Your task to perform on an android device: turn off location Image 0: 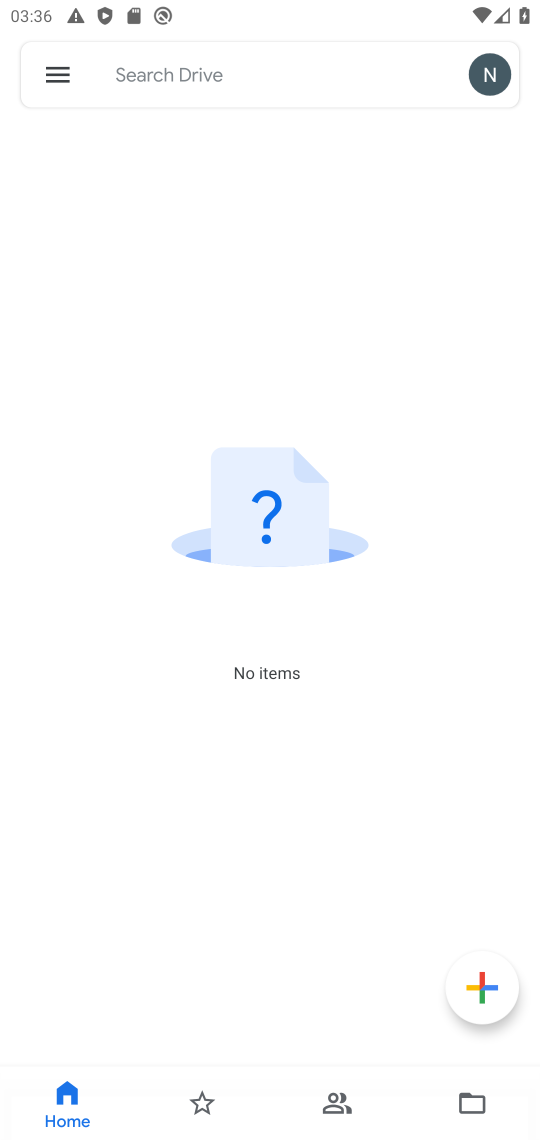
Step 0: press home button
Your task to perform on an android device: turn off location Image 1: 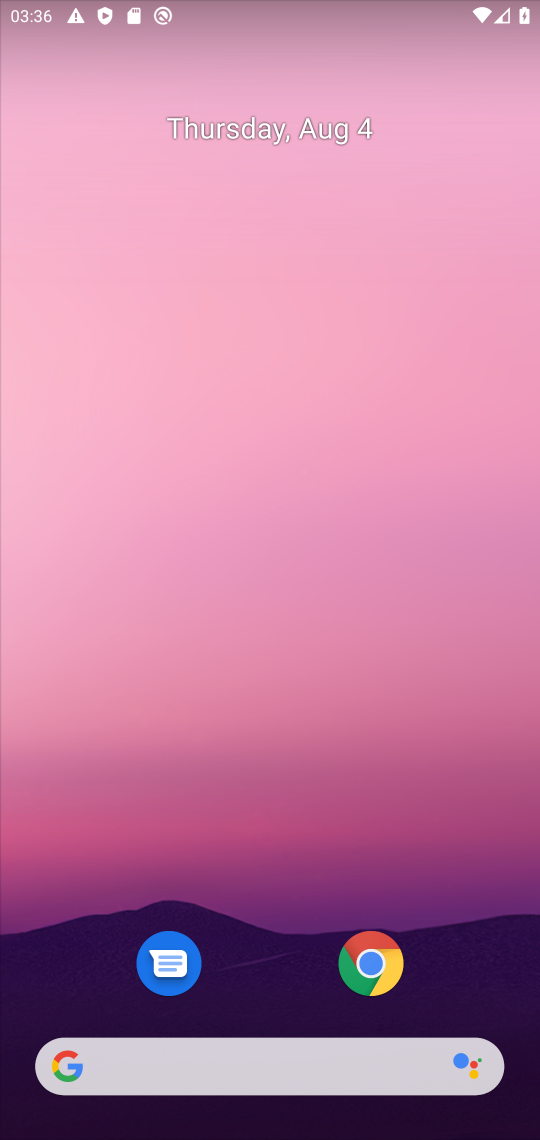
Step 1: drag from (289, 946) to (278, 48)
Your task to perform on an android device: turn off location Image 2: 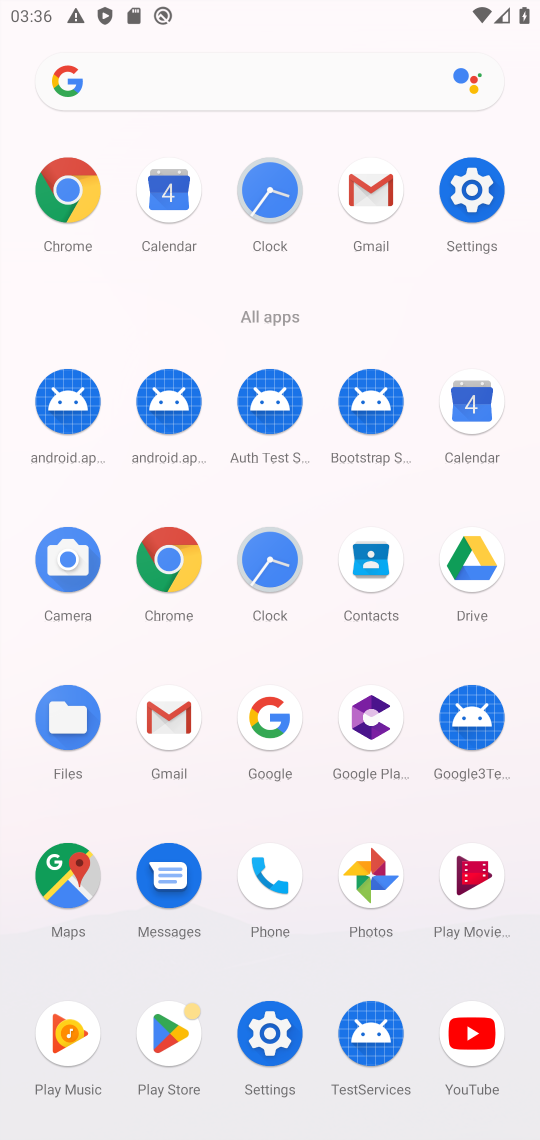
Step 2: click (480, 190)
Your task to perform on an android device: turn off location Image 3: 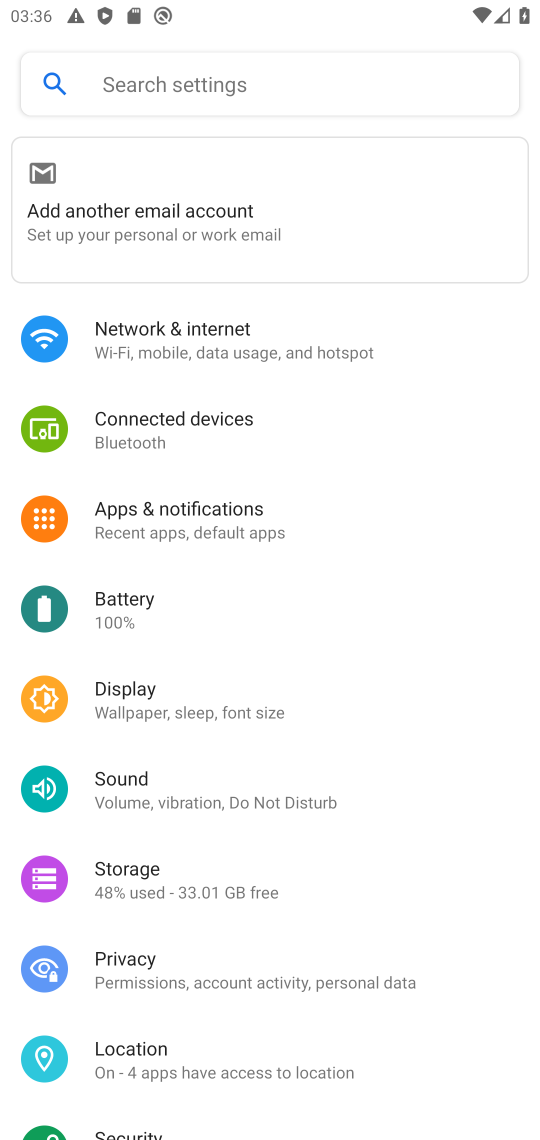
Step 3: click (124, 1047)
Your task to perform on an android device: turn off location Image 4: 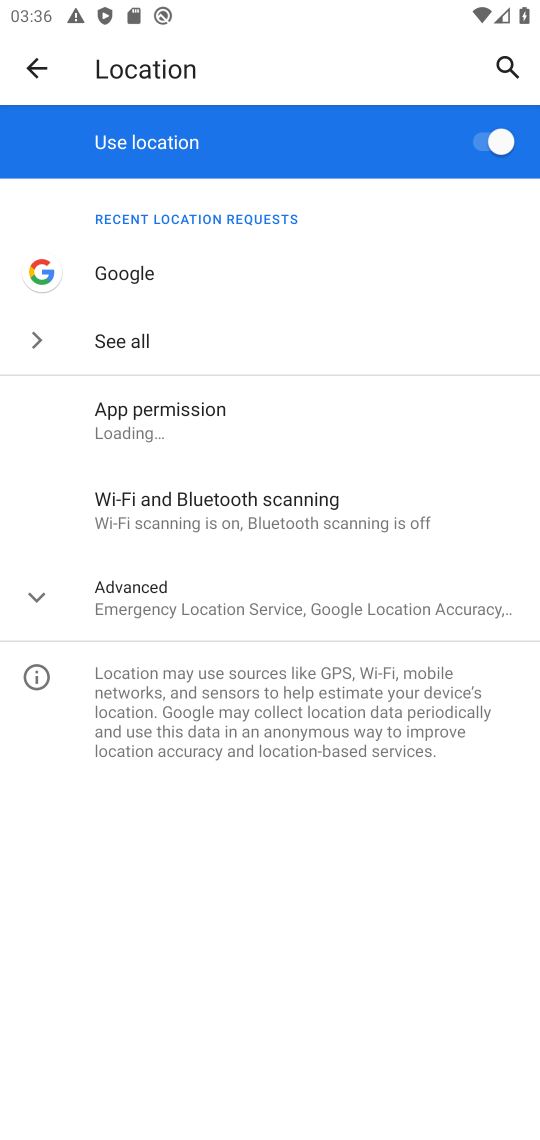
Step 4: click (497, 147)
Your task to perform on an android device: turn off location Image 5: 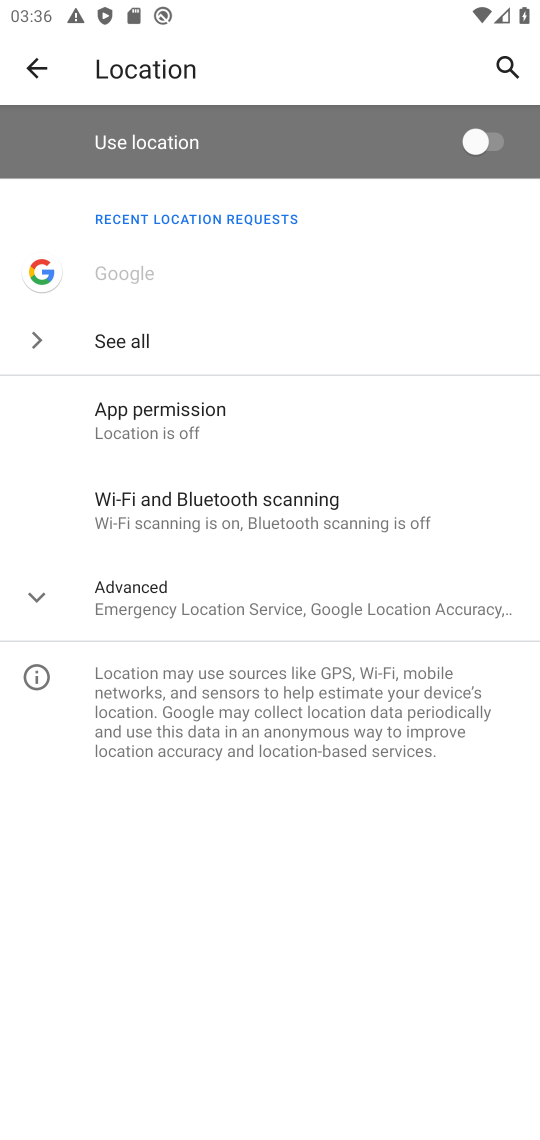
Step 5: task complete